Your task to perform on an android device: Open Reddit.com Image 0: 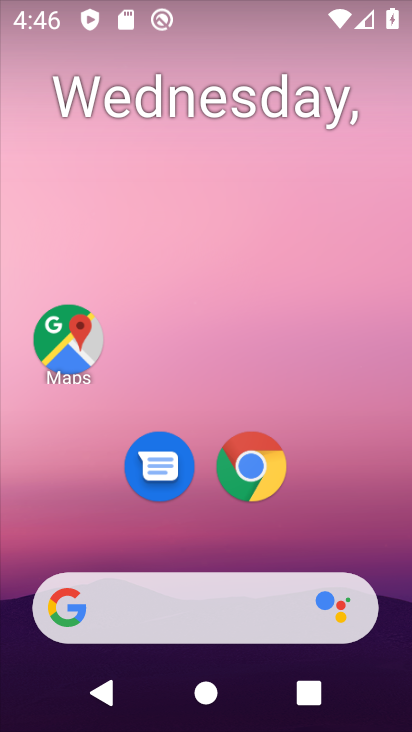
Step 0: drag from (346, 546) to (261, 10)
Your task to perform on an android device: Open Reddit.com Image 1: 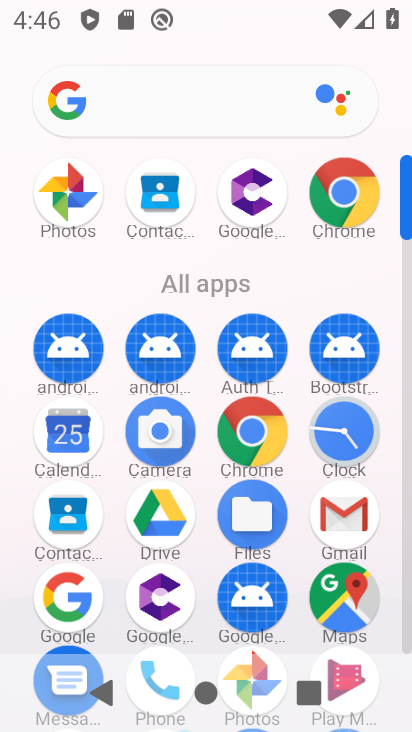
Step 1: click (249, 424)
Your task to perform on an android device: Open Reddit.com Image 2: 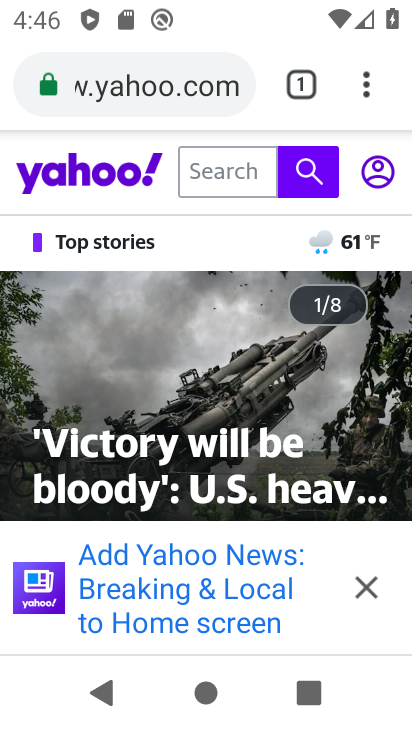
Step 2: click (203, 83)
Your task to perform on an android device: Open Reddit.com Image 3: 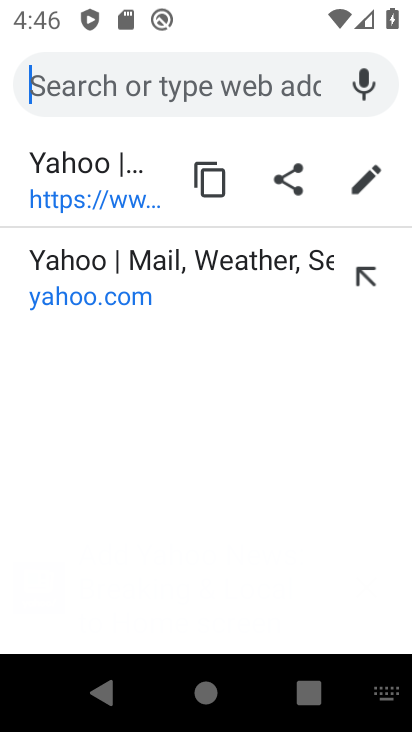
Step 3: type "Reddit.com"
Your task to perform on an android device: Open Reddit.com Image 4: 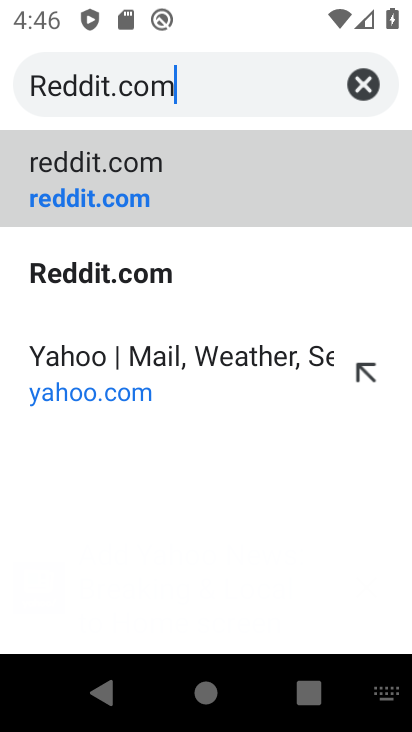
Step 4: type ""
Your task to perform on an android device: Open Reddit.com Image 5: 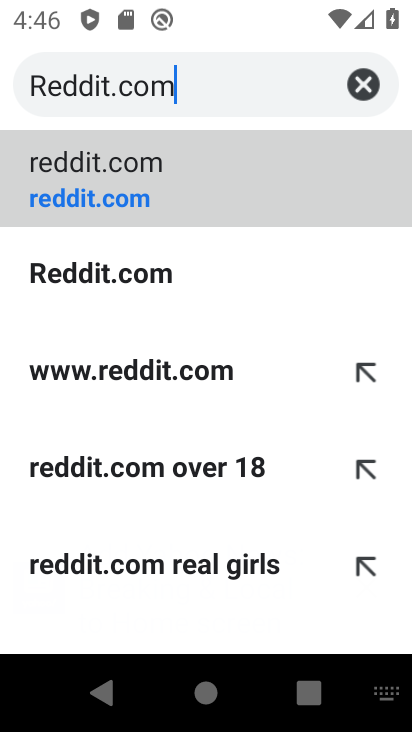
Step 5: click (135, 191)
Your task to perform on an android device: Open Reddit.com Image 6: 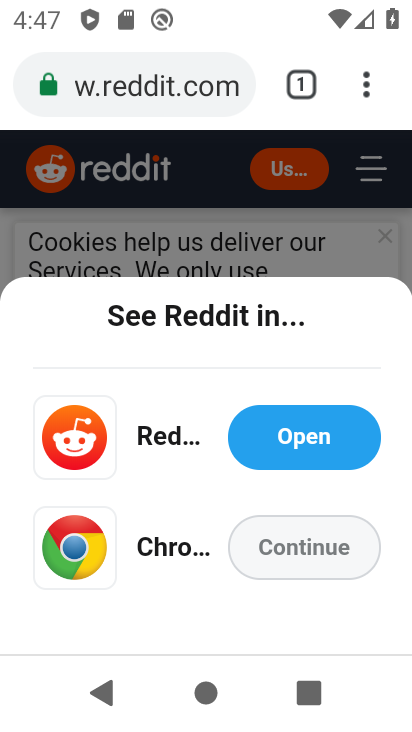
Step 6: task complete